Your task to perform on an android device: What's on my calendar tomorrow? Image 0: 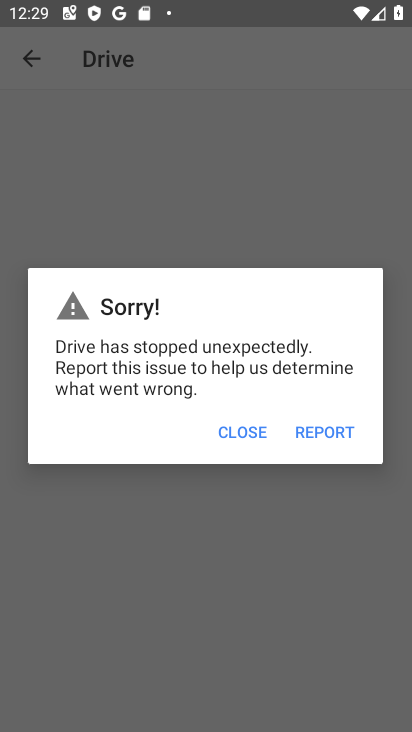
Step 0: click (260, 518)
Your task to perform on an android device: What's on my calendar tomorrow? Image 1: 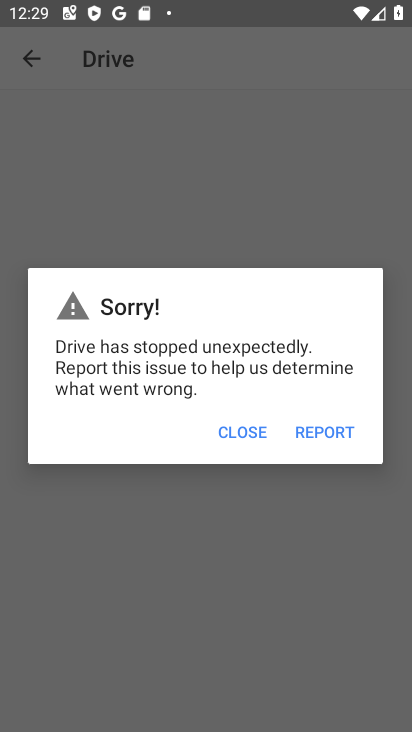
Step 1: press home button
Your task to perform on an android device: What's on my calendar tomorrow? Image 2: 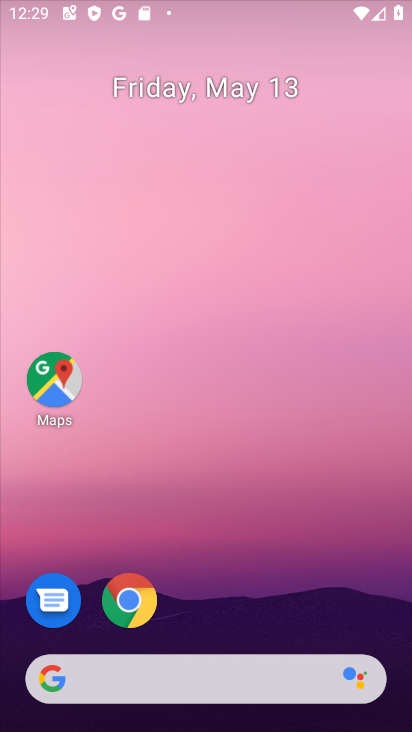
Step 2: drag from (258, 629) to (241, 188)
Your task to perform on an android device: What's on my calendar tomorrow? Image 3: 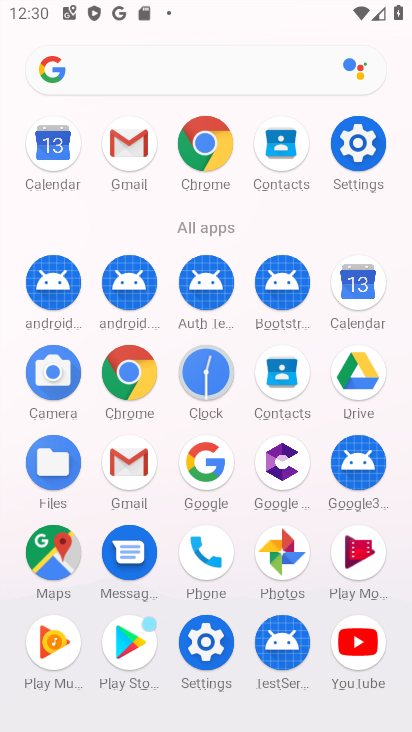
Step 3: click (355, 310)
Your task to perform on an android device: What's on my calendar tomorrow? Image 4: 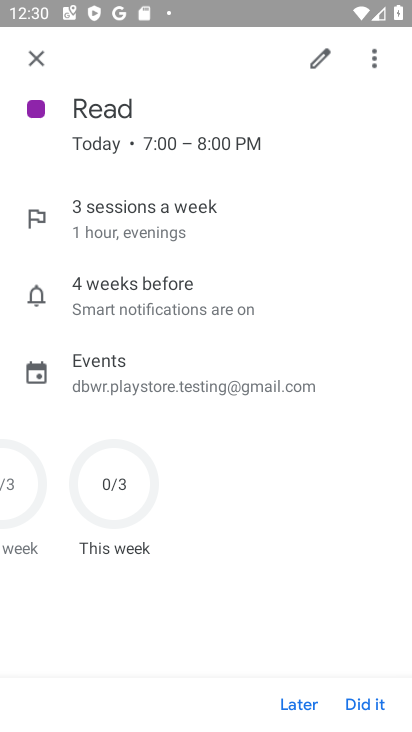
Step 4: drag from (246, 488) to (221, 322)
Your task to perform on an android device: What's on my calendar tomorrow? Image 5: 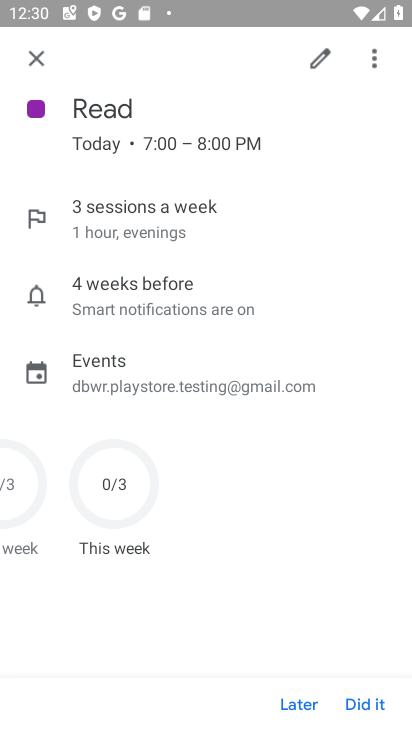
Step 5: click (34, 67)
Your task to perform on an android device: What's on my calendar tomorrow? Image 6: 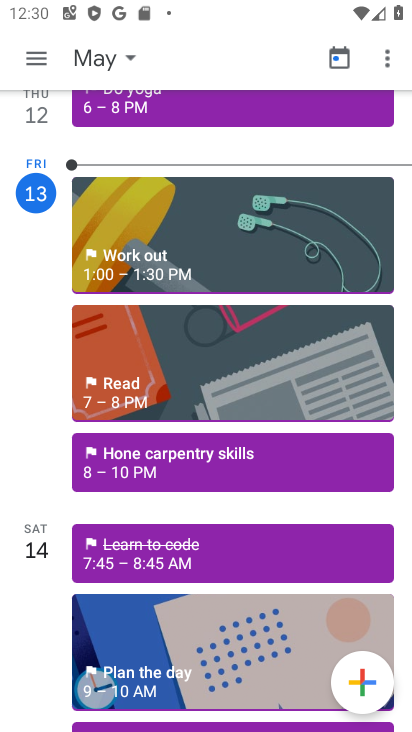
Step 6: click (115, 48)
Your task to perform on an android device: What's on my calendar tomorrow? Image 7: 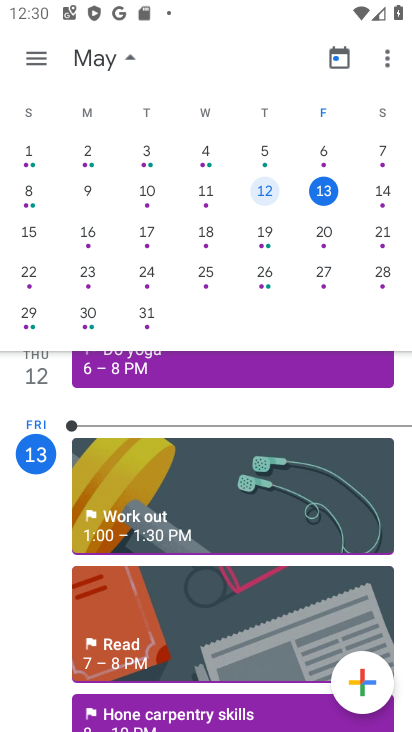
Step 7: click (365, 194)
Your task to perform on an android device: What's on my calendar tomorrow? Image 8: 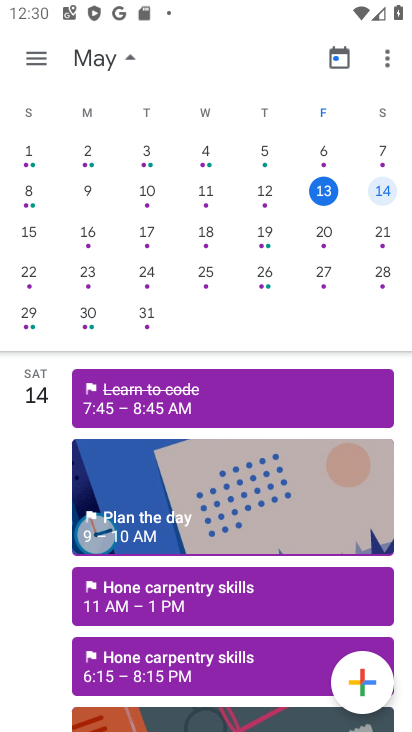
Step 8: task complete